Your task to perform on an android device: search for starred emails in the gmail app Image 0: 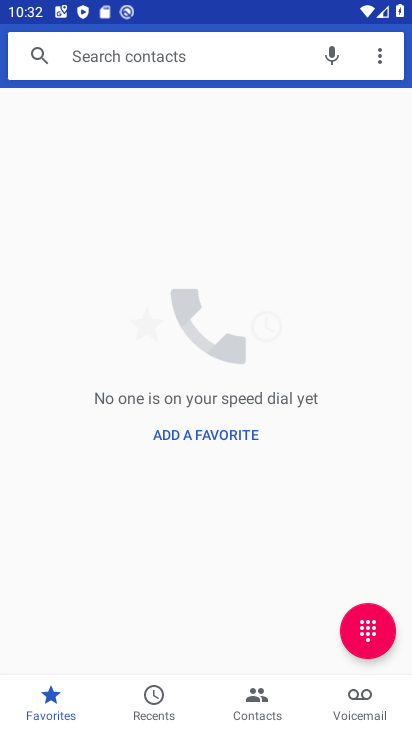
Step 0: press home button
Your task to perform on an android device: search for starred emails in the gmail app Image 1: 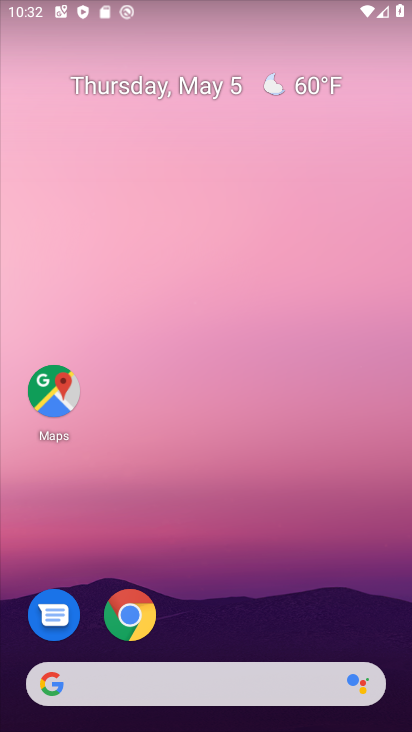
Step 1: drag from (250, 600) to (330, 105)
Your task to perform on an android device: search for starred emails in the gmail app Image 2: 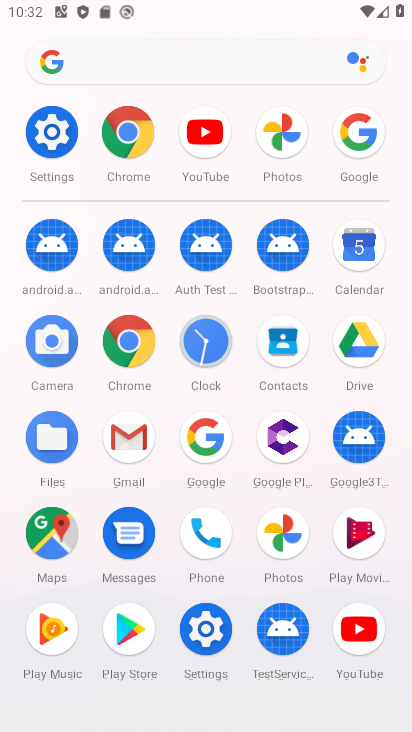
Step 2: click (134, 439)
Your task to perform on an android device: search for starred emails in the gmail app Image 3: 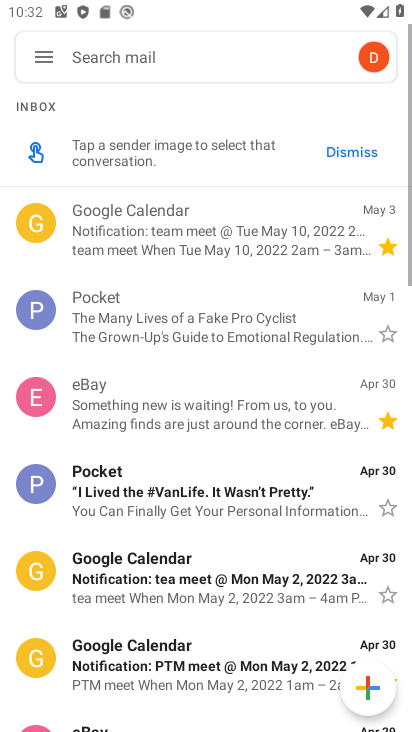
Step 3: click (42, 63)
Your task to perform on an android device: search for starred emails in the gmail app Image 4: 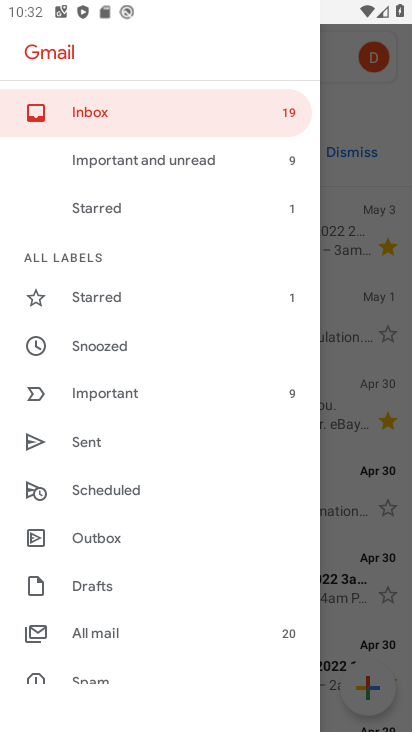
Step 4: click (116, 306)
Your task to perform on an android device: search for starred emails in the gmail app Image 5: 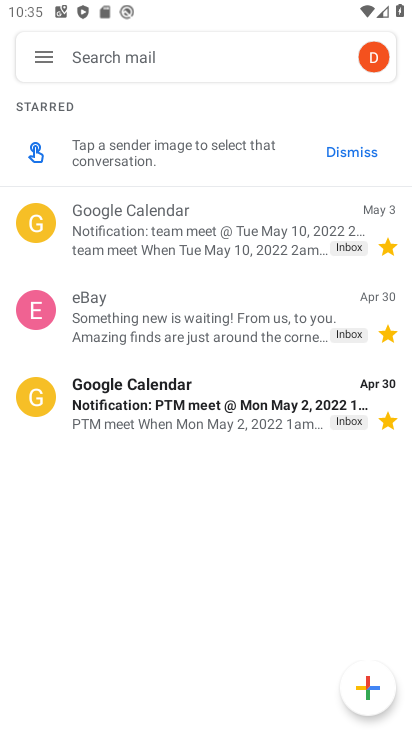
Step 5: task complete